Your task to perform on an android device: Set the phone to "Do not disturb". Image 0: 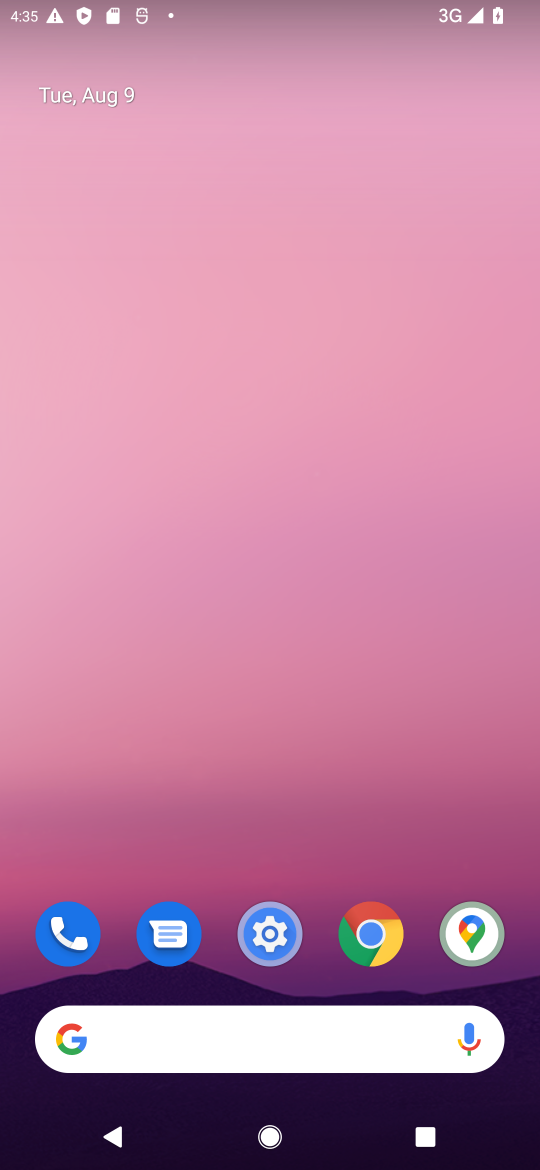
Step 0: click (286, 933)
Your task to perform on an android device: Set the phone to "Do not disturb". Image 1: 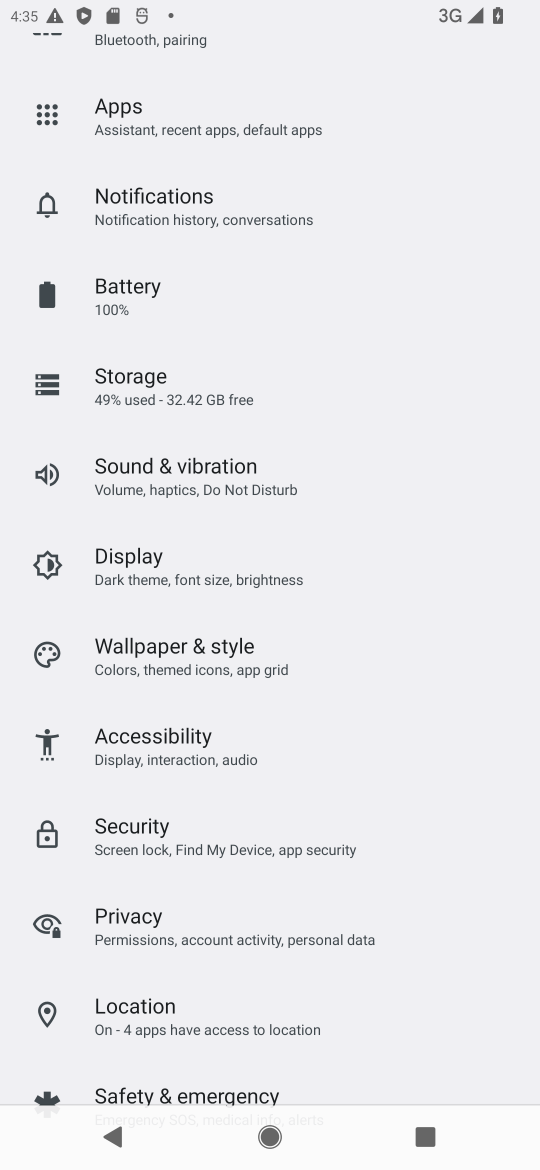
Step 1: task complete